Your task to perform on an android device: Go to battery settings Image 0: 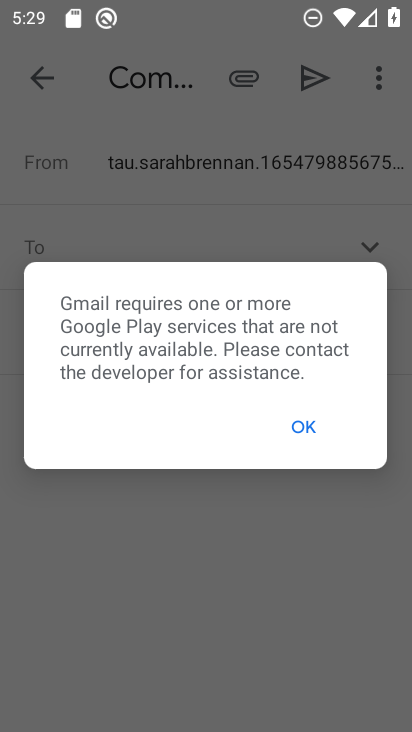
Step 0: press home button
Your task to perform on an android device: Go to battery settings Image 1: 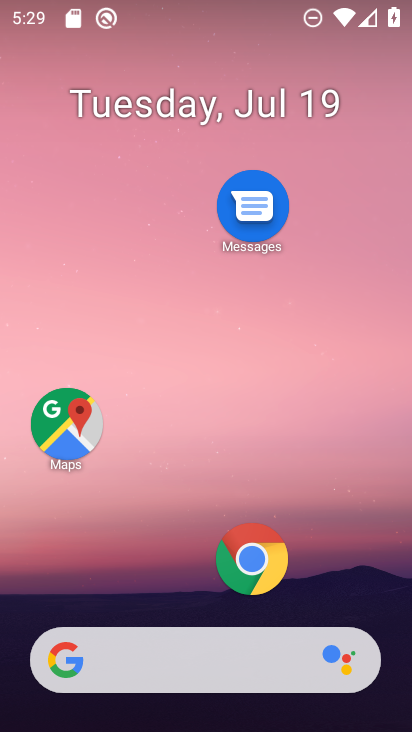
Step 1: drag from (133, 587) to (192, 3)
Your task to perform on an android device: Go to battery settings Image 2: 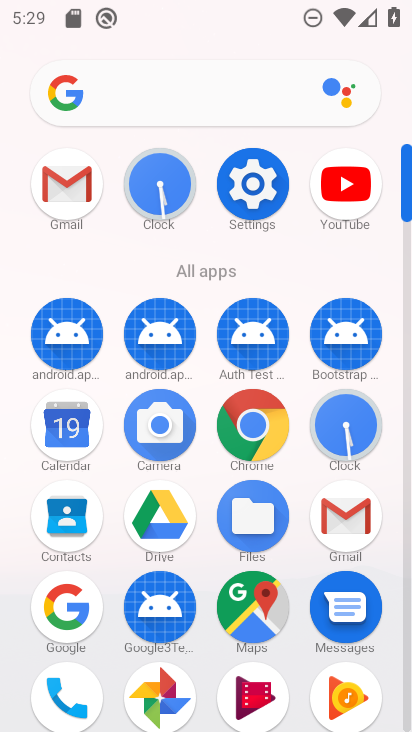
Step 2: click (245, 171)
Your task to perform on an android device: Go to battery settings Image 3: 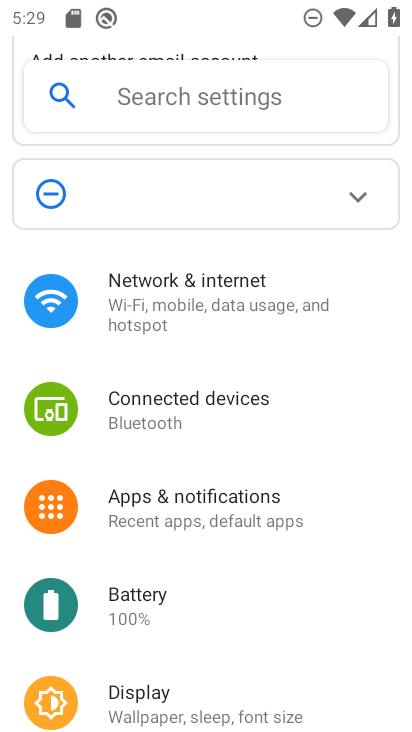
Step 3: click (149, 615)
Your task to perform on an android device: Go to battery settings Image 4: 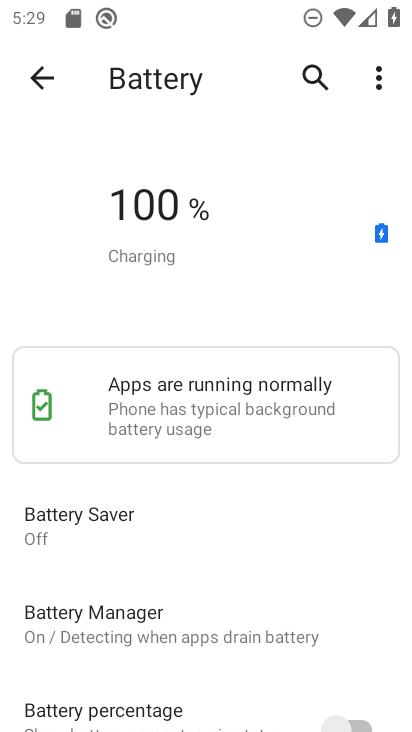
Step 4: task complete